Your task to perform on an android device: Open settings on Google Maps Image 0: 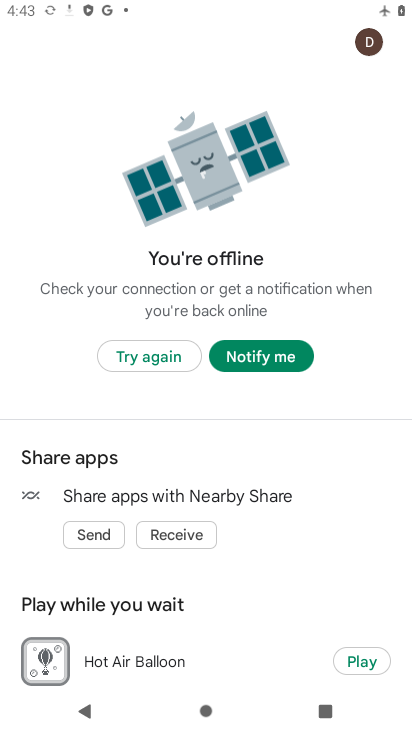
Step 0: task impossible